Your task to perform on an android device: Open the phone app and click the voicemail tab. Image 0: 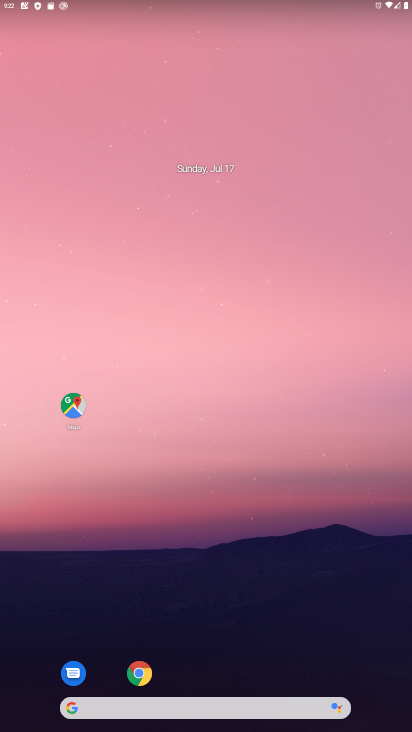
Step 0: drag from (326, 639) to (190, 19)
Your task to perform on an android device: Open the phone app and click the voicemail tab. Image 1: 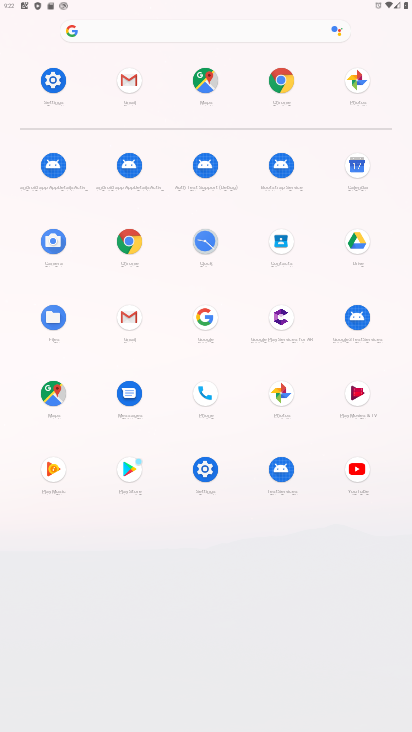
Step 1: click (206, 396)
Your task to perform on an android device: Open the phone app and click the voicemail tab. Image 2: 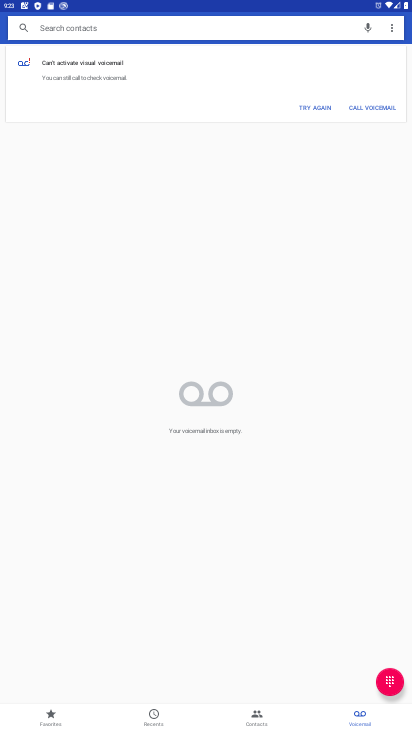
Step 2: task complete